Your task to perform on an android device: turn off priority inbox in the gmail app Image 0: 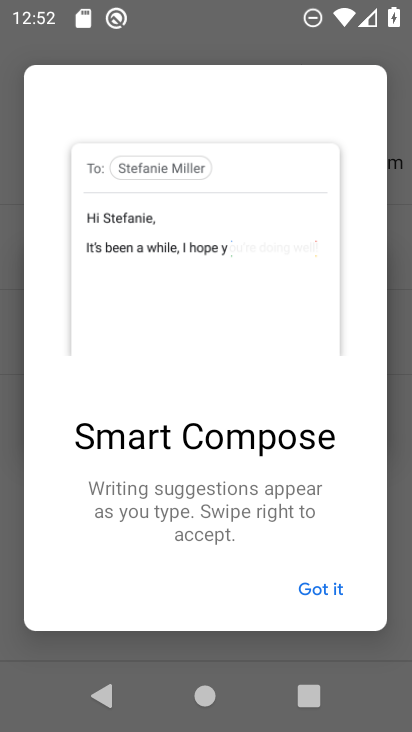
Step 0: press home button
Your task to perform on an android device: turn off priority inbox in the gmail app Image 1: 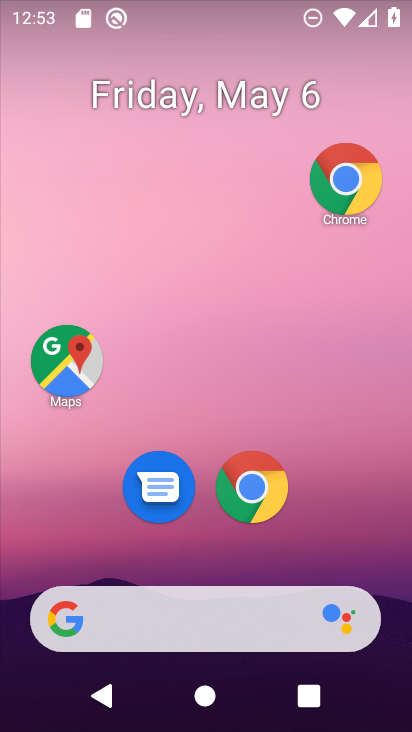
Step 1: drag from (354, 559) to (267, 92)
Your task to perform on an android device: turn off priority inbox in the gmail app Image 2: 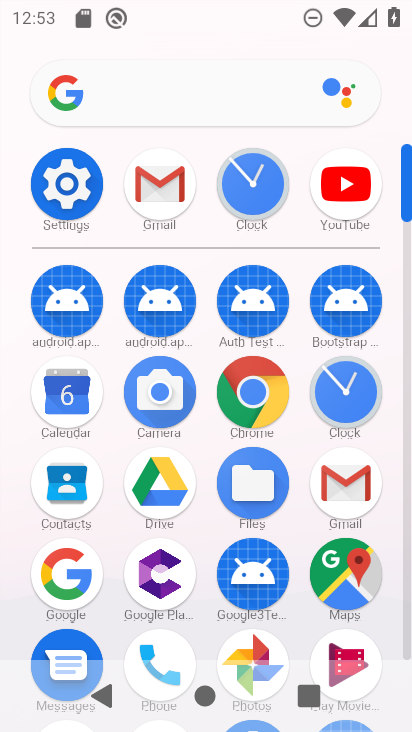
Step 2: click (340, 480)
Your task to perform on an android device: turn off priority inbox in the gmail app Image 3: 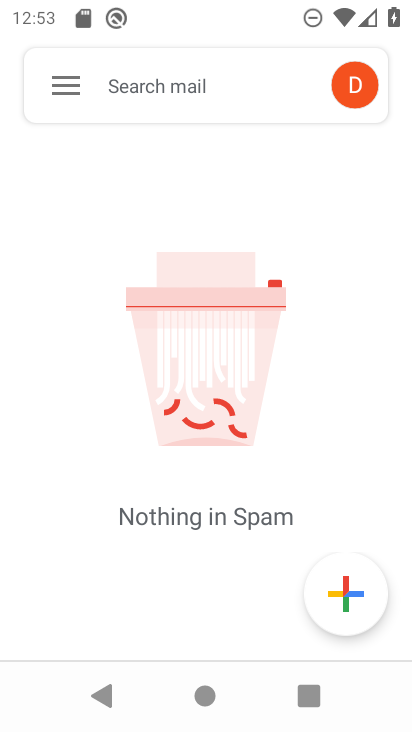
Step 3: click (67, 95)
Your task to perform on an android device: turn off priority inbox in the gmail app Image 4: 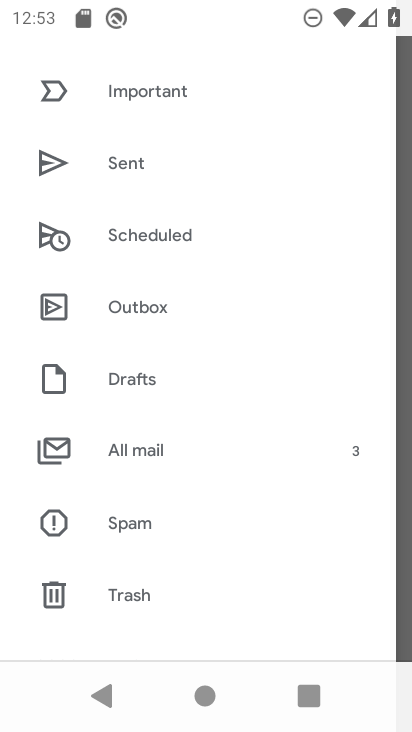
Step 4: task complete